Your task to perform on an android device: turn on the 12-hour format for clock Image 0: 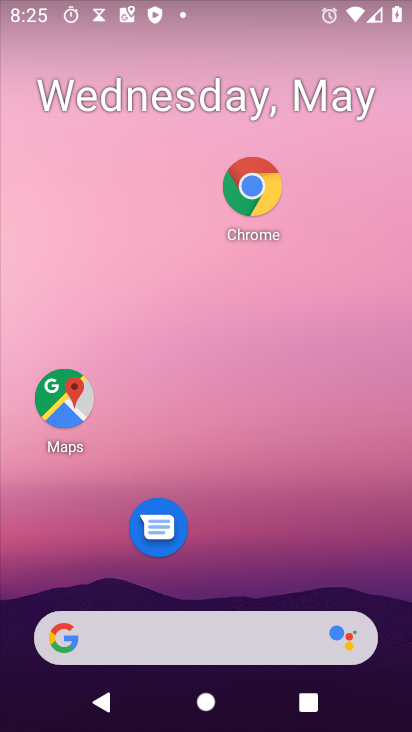
Step 0: drag from (248, 565) to (230, 46)
Your task to perform on an android device: turn on the 12-hour format for clock Image 1: 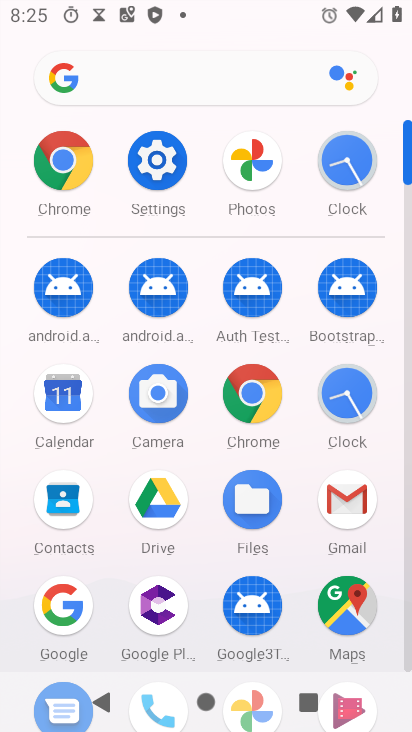
Step 1: click (348, 394)
Your task to perform on an android device: turn on the 12-hour format for clock Image 2: 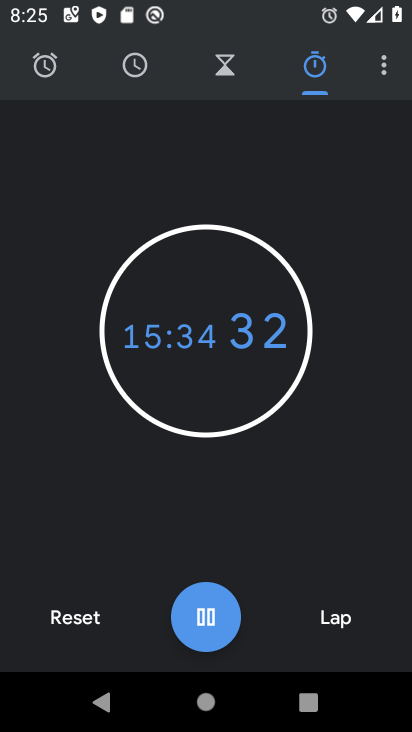
Step 2: click (388, 58)
Your task to perform on an android device: turn on the 12-hour format for clock Image 3: 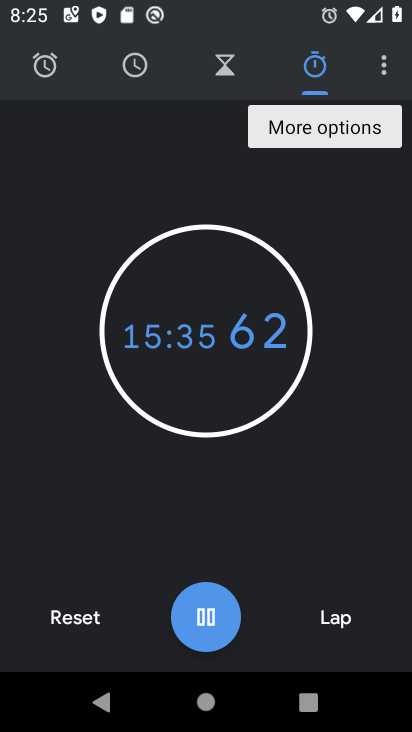
Step 3: click (388, 58)
Your task to perform on an android device: turn on the 12-hour format for clock Image 4: 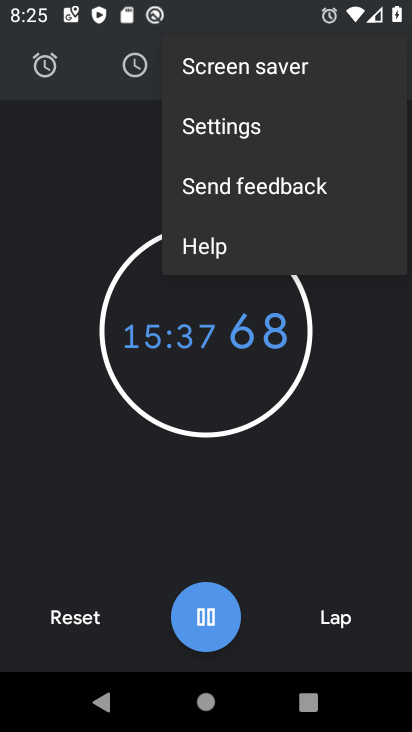
Step 4: click (242, 122)
Your task to perform on an android device: turn on the 12-hour format for clock Image 5: 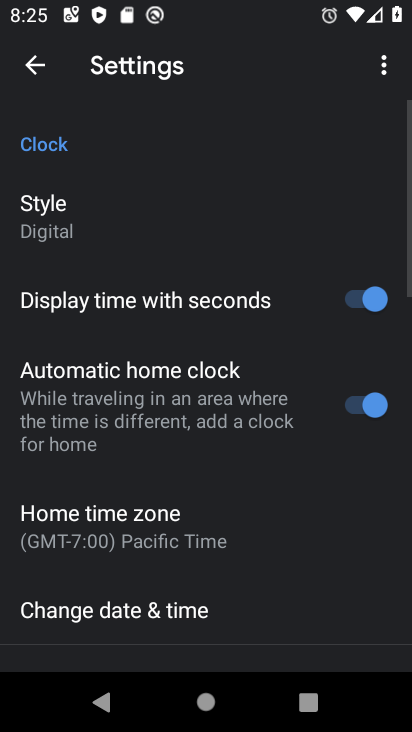
Step 5: drag from (302, 589) to (264, 176)
Your task to perform on an android device: turn on the 12-hour format for clock Image 6: 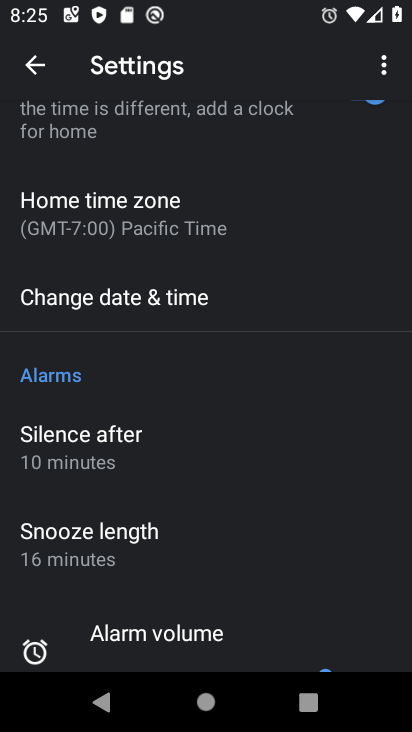
Step 6: click (182, 296)
Your task to perform on an android device: turn on the 12-hour format for clock Image 7: 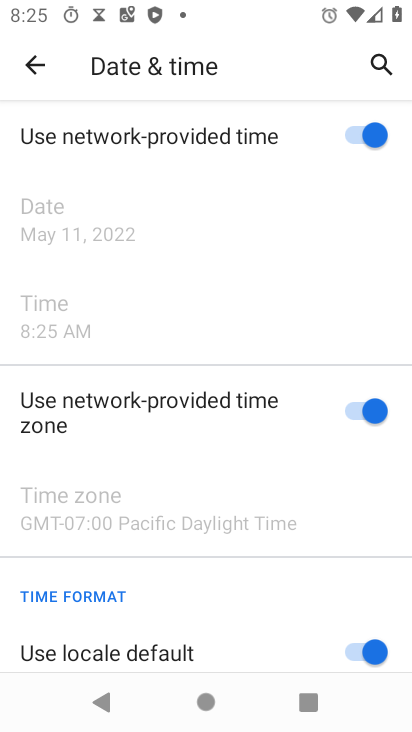
Step 7: task complete